Your task to perform on an android device: Open location settings Image 0: 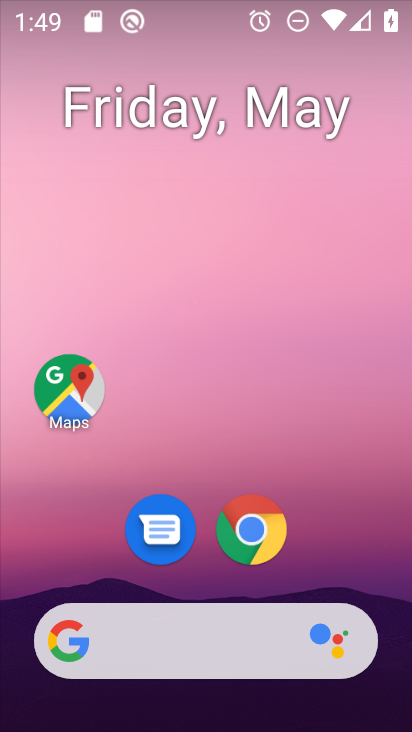
Step 0: drag from (399, 672) to (322, 254)
Your task to perform on an android device: Open location settings Image 1: 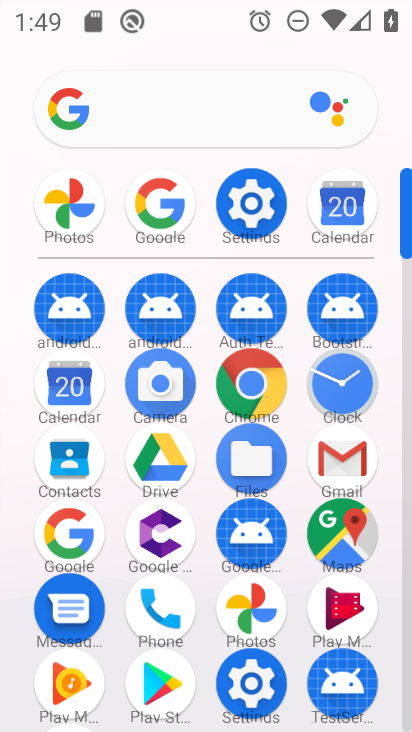
Step 1: click (252, 680)
Your task to perform on an android device: Open location settings Image 2: 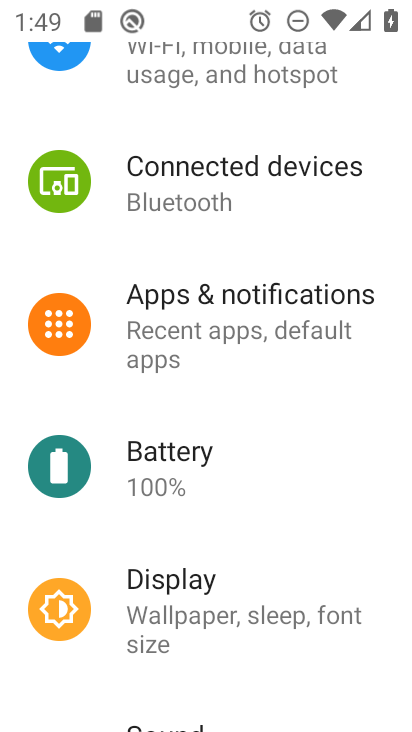
Step 2: drag from (285, 703) to (188, 170)
Your task to perform on an android device: Open location settings Image 3: 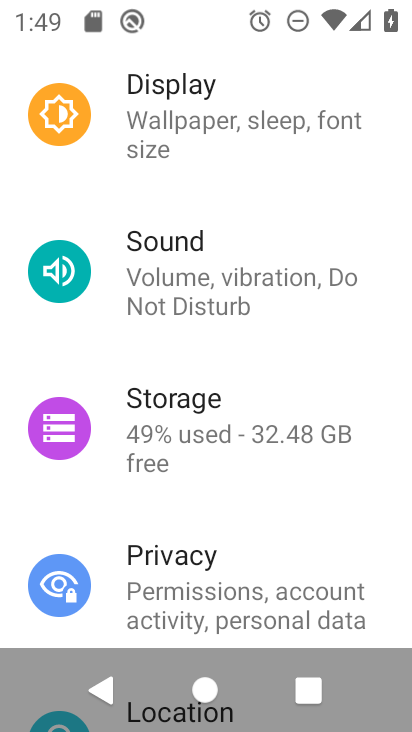
Step 3: drag from (325, 627) to (331, 249)
Your task to perform on an android device: Open location settings Image 4: 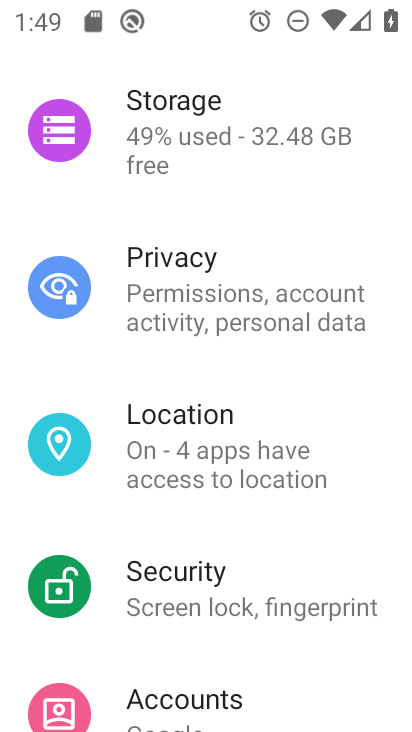
Step 4: click (183, 417)
Your task to perform on an android device: Open location settings Image 5: 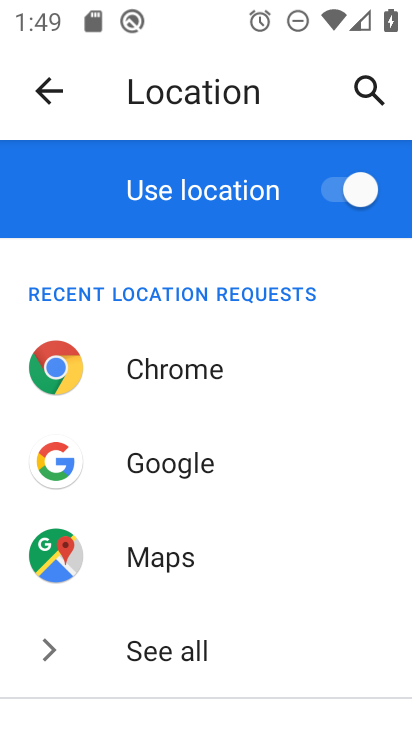
Step 5: task complete